Your task to perform on an android device: Is it going to rain tomorrow? Image 0: 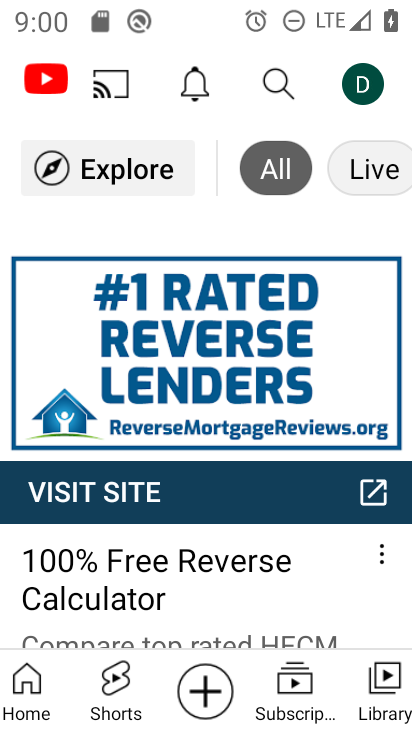
Step 0: press home button
Your task to perform on an android device: Is it going to rain tomorrow? Image 1: 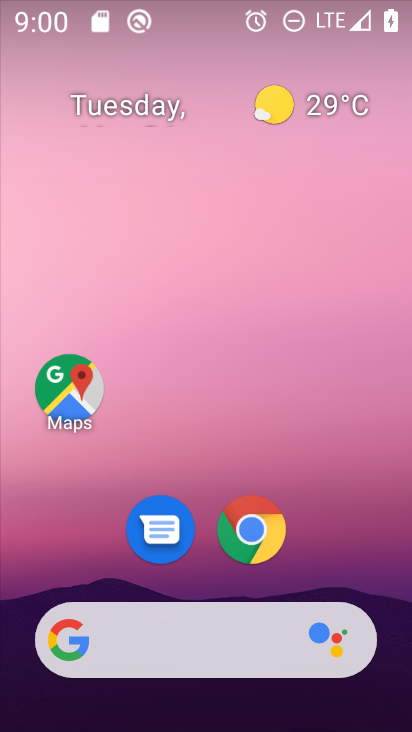
Step 1: drag from (397, 636) to (285, 113)
Your task to perform on an android device: Is it going to rain tomorrow? Image 2: 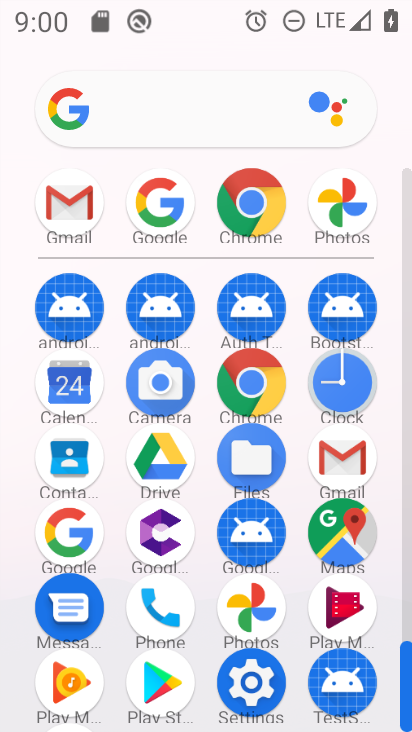
Step 2: click (59, 521)
Your task to perform on an android device: Is it going to rain tomorrow? Image 3: 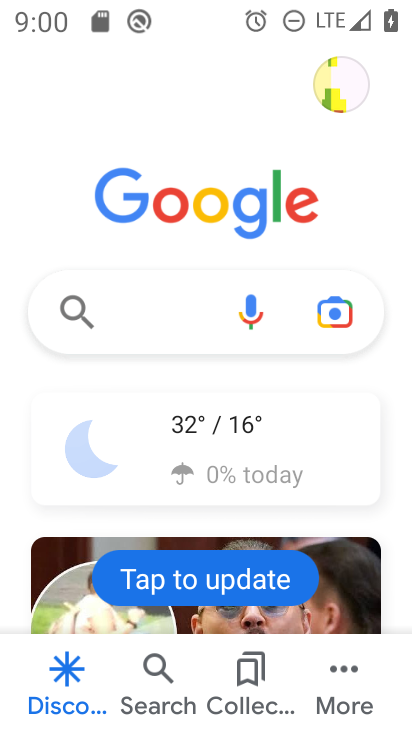
Step 3: click (135, 309)
Your task to perform on an android device: Is it going to rain tomorrow? Image 4: 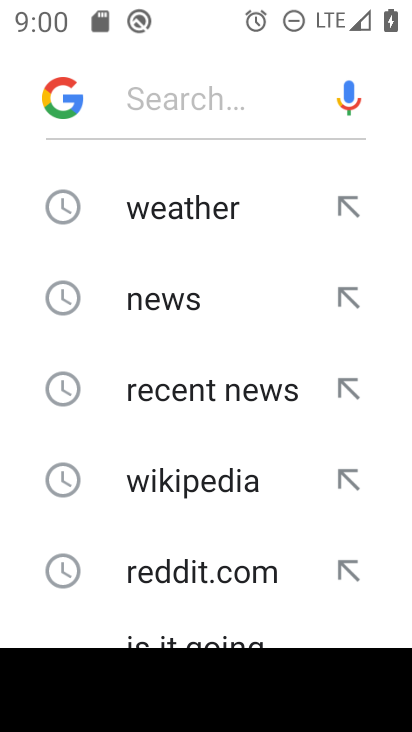
Step 4: drag from (215, 593) to (293, 181)
Your task to perform on an android device: Is it going to rain tomorrow? Image 5: 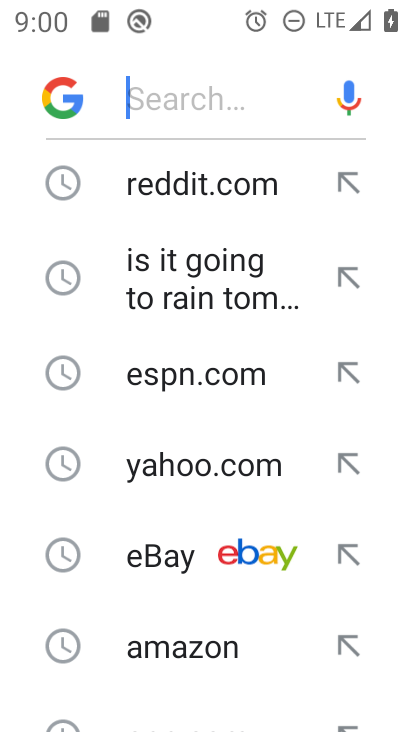
Step 5: click (156, 306)
Your task to perform on an android device: Is it going to rain tomorrow? Image 6: 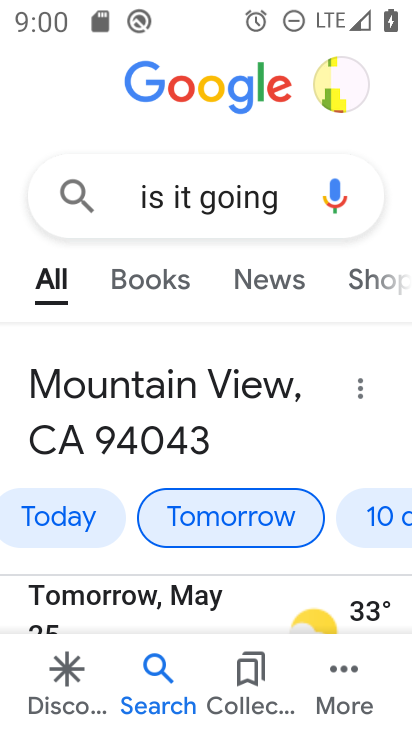
Step 6: task complete